Your task to perform on an android device: check out phone information Image 0: 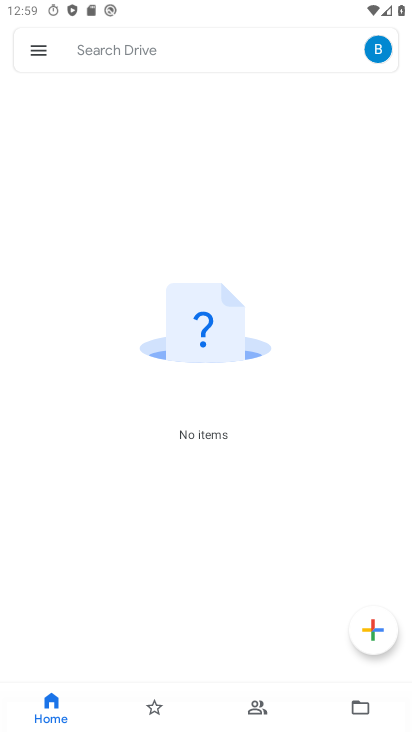
Step 0: press home button
Your task to perform on an android device: check out phone information Image 1: 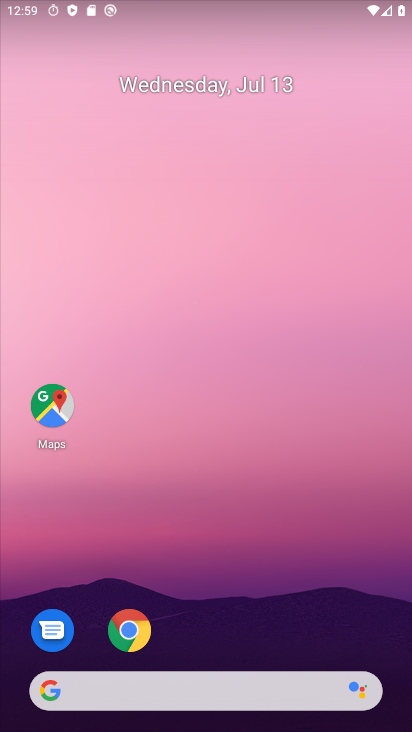
Step 1: drag from (342, 618) to (351, 0)
Your task to perform on an android device: check out phone information Image 2: 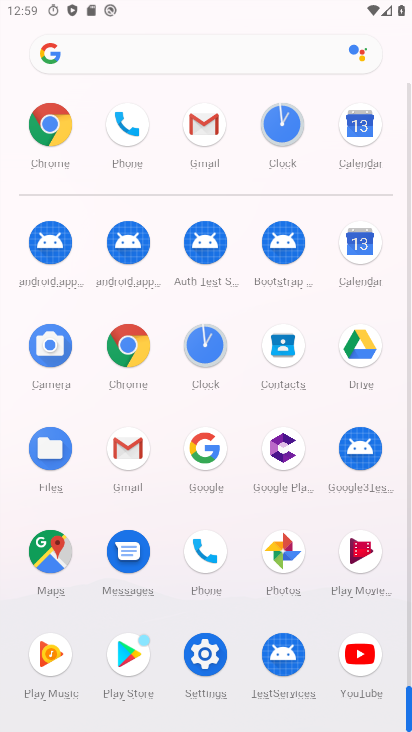
Step 2: click (185, 658)
Your task to perform on an android device: check out phone information Image 3: 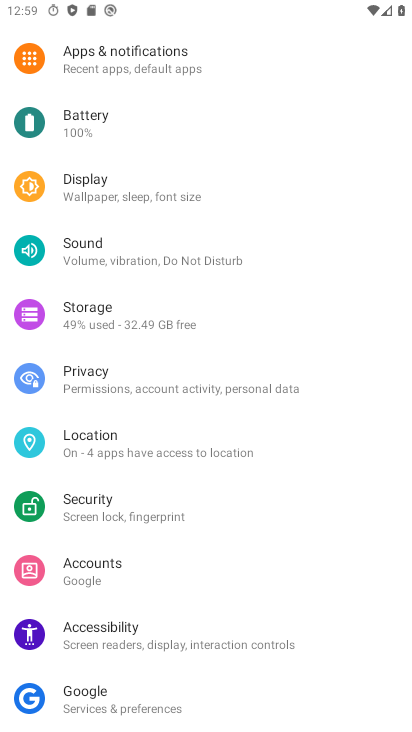
Step 3: drag from (185, 656) to (278, 112)
Your task to perform on an android device: check out phone information Image 4: 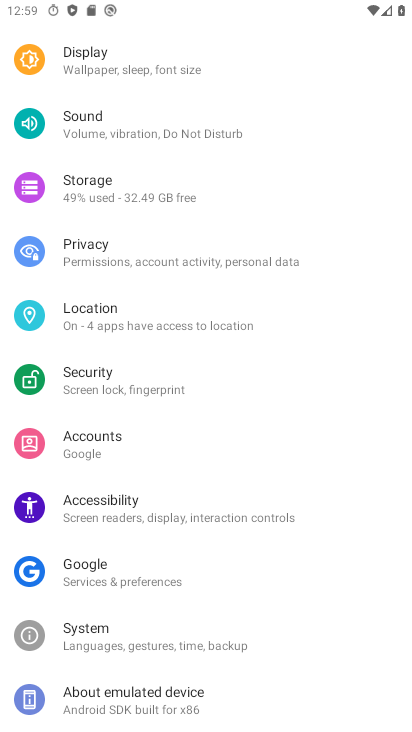
Step 4: click (209, 687)
Your task to perform on an android device: check out phone information Image 5: 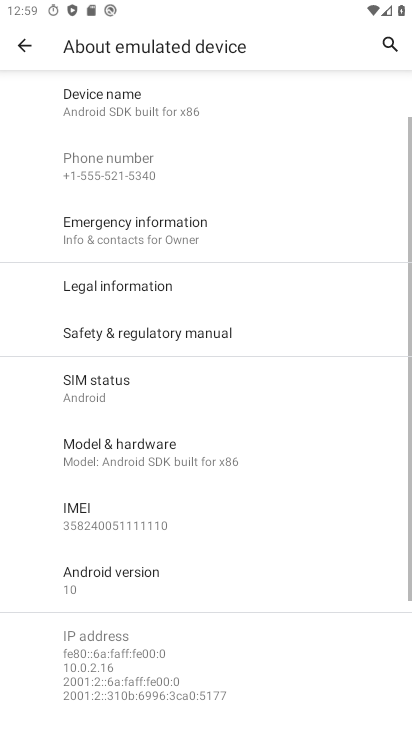
Step 5: task complete